Your task to perform on an android device: Open Chrome and go to settings Image 0: 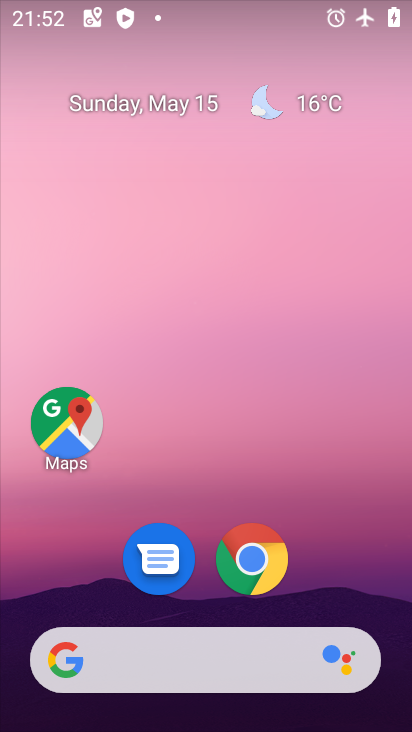
Step 0: drag from (329, 450) to (255, 70)
Your task to perform on an android device: Open Chrome and go to settings Image 1: 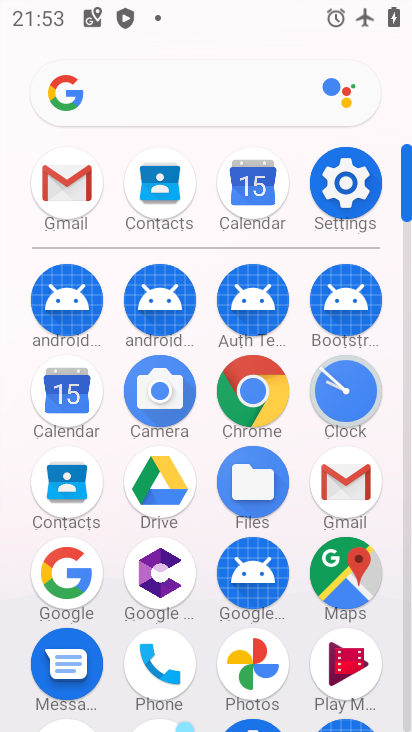
Step 1: click (254, 378)
Your task to perform on an android device: Open Chrome and go to settings Image 2: 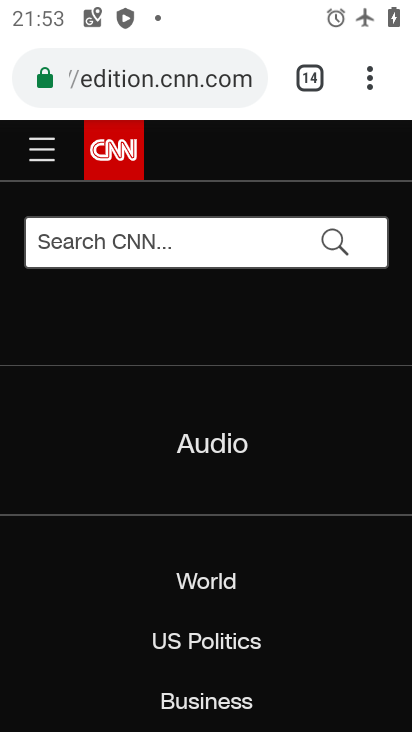
Step 2: click (367, 75)
Your task to perform on an android device: Open Chrome and go to settings Image 3: 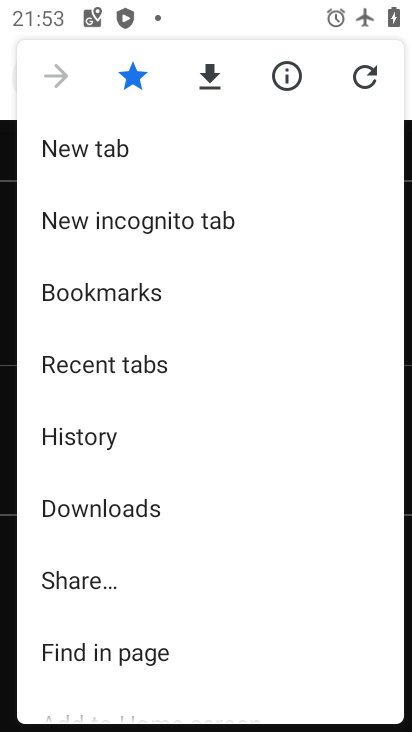
Step 3: drag from (211, 592) to (217, 218)
Your task to perform on an android device: Open Chrome and go to settings Image 4: 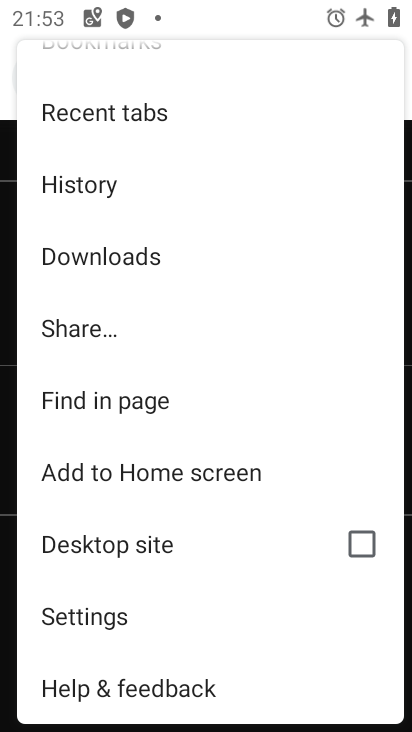
Step 4: click (79, 608)
Your task to perform on an android device: Open Chrome and go to settings Image 5: 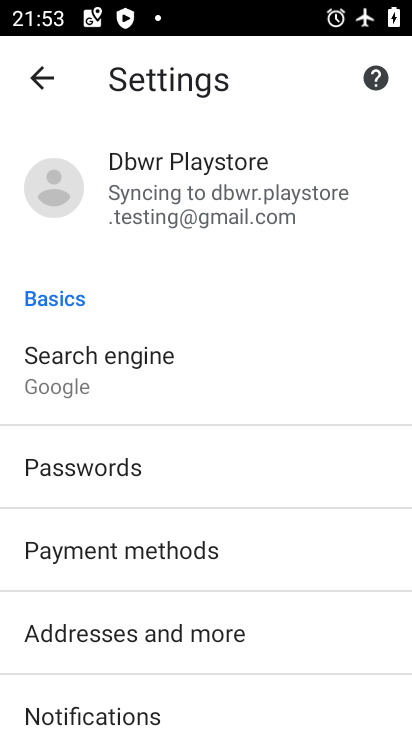
Step 5: task complete